Your task to perform on an android device: open a new tab in the chrome app Image 0: 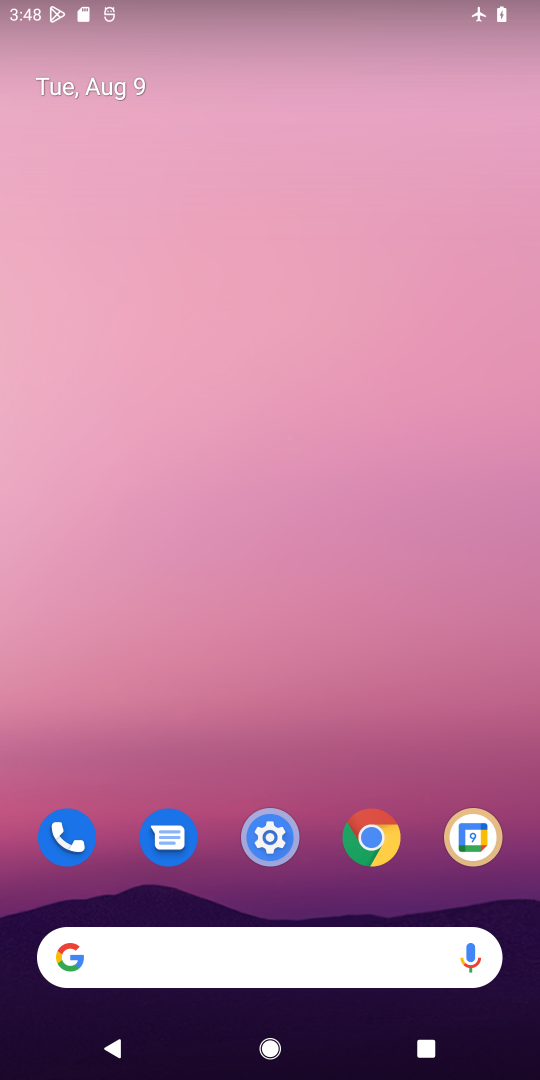
Step 0: drag from (248, 312) to (263, 165)
Your task to perform on an android device: open a new tab in the chrome app Image 1: 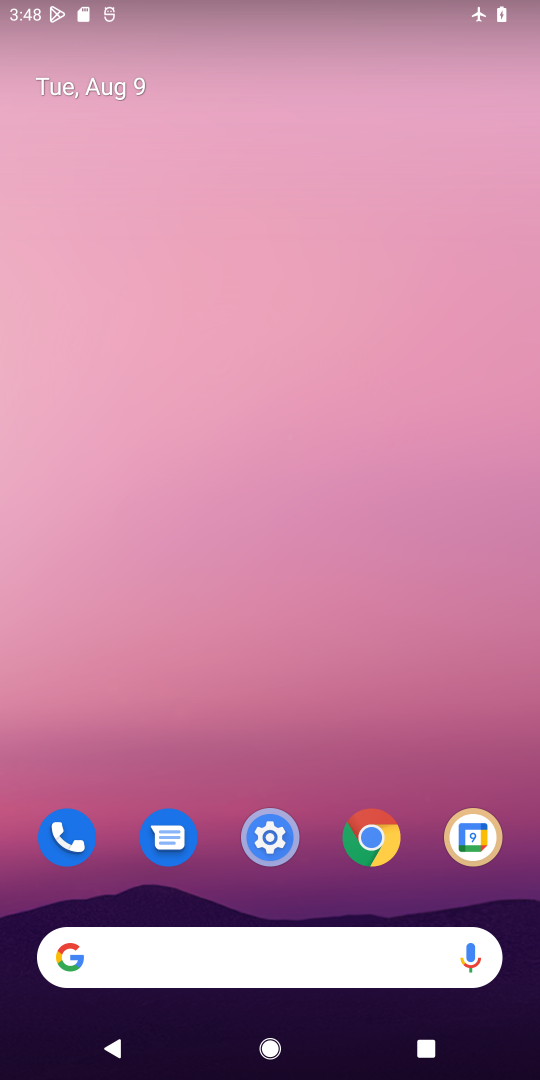
Step 1: drag from (296, 863) to (322, 188)
Your task to perform on an android device: open a new tab in the chrome app Image 2: 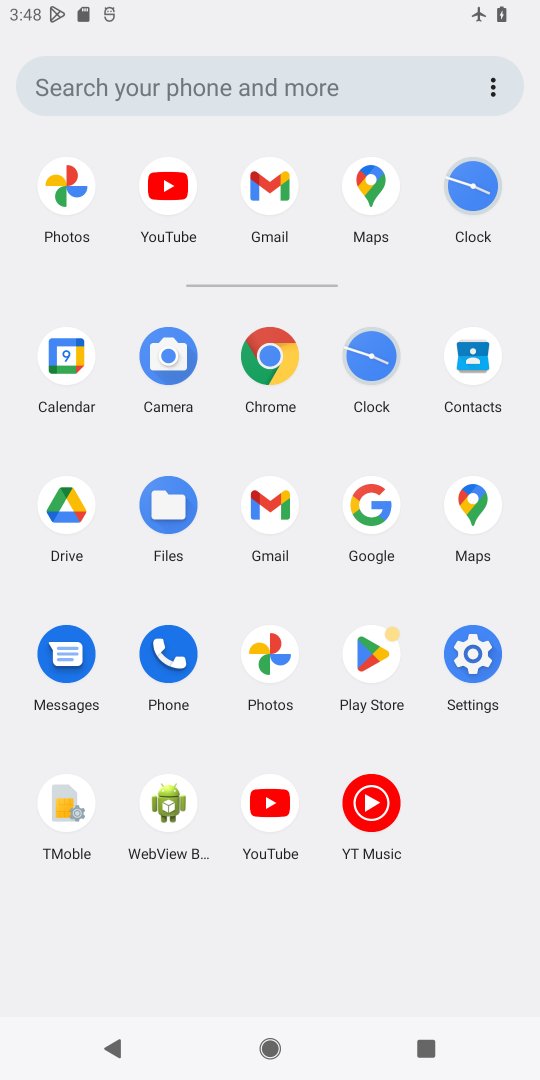
Step 2: click (263, 375)
Your task to perform on an android device: open a new tab in the chrome app Image 3: 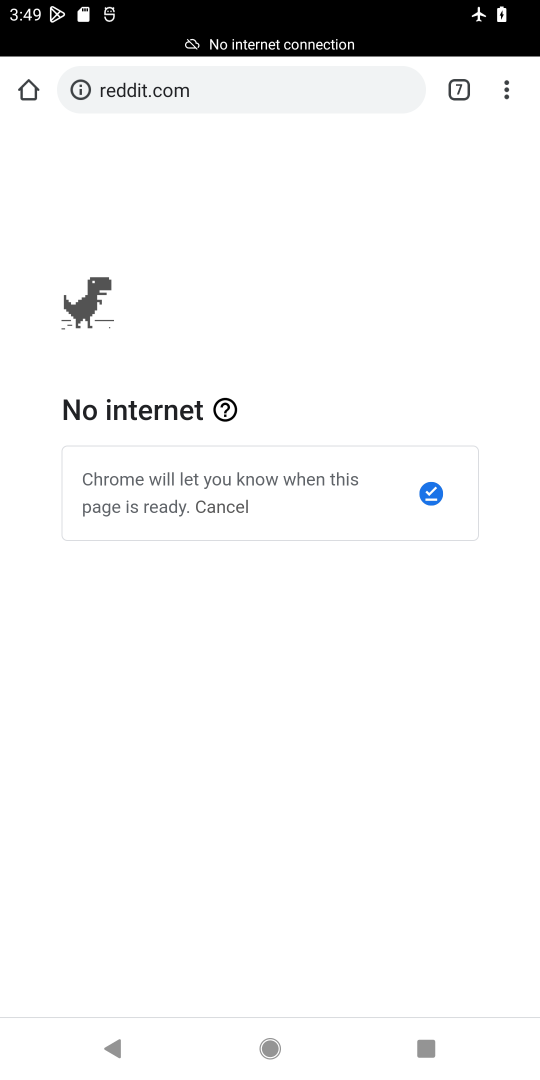
Step 3: click (512, 91)
Your task to perform on an android device: open a new tab in the chrome app Image 4: 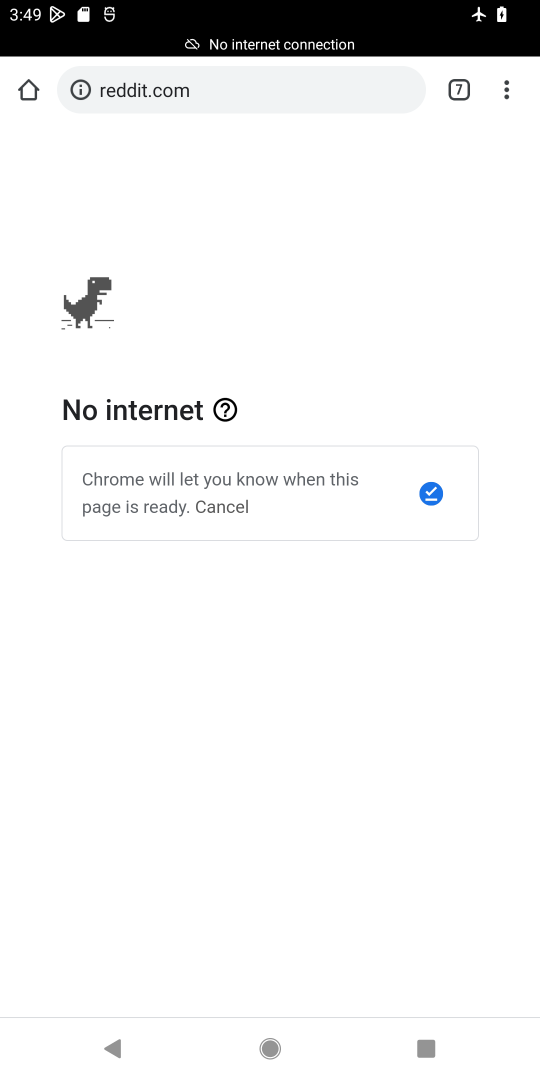
Step 4: click (501, 85)
Your task to perform on an android device: open a new tab in the chrome app Image 5: 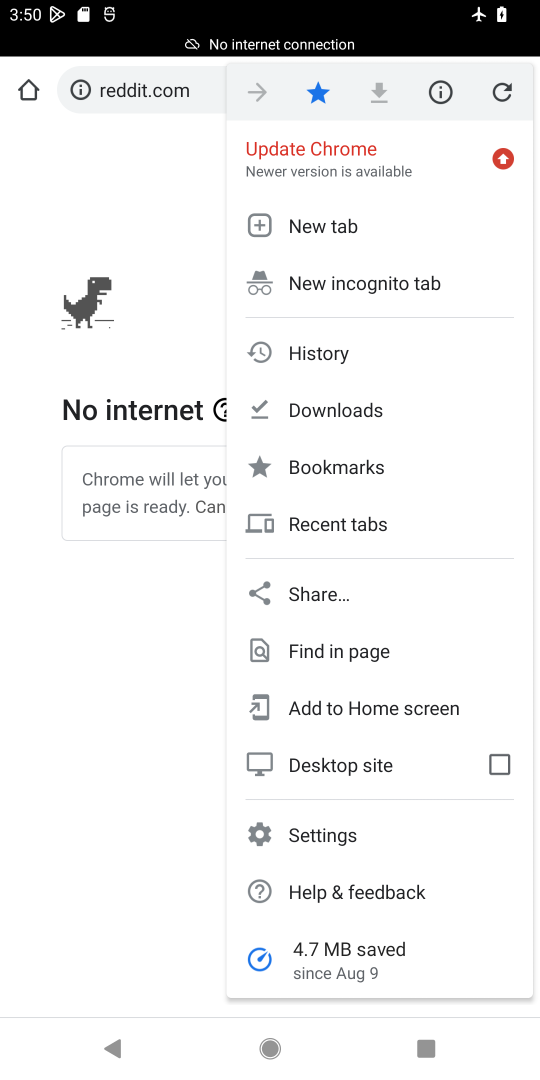
Step 5: click (312, 213)
Your task to perform on an android device: open a new tab in the chrome app Image 6: 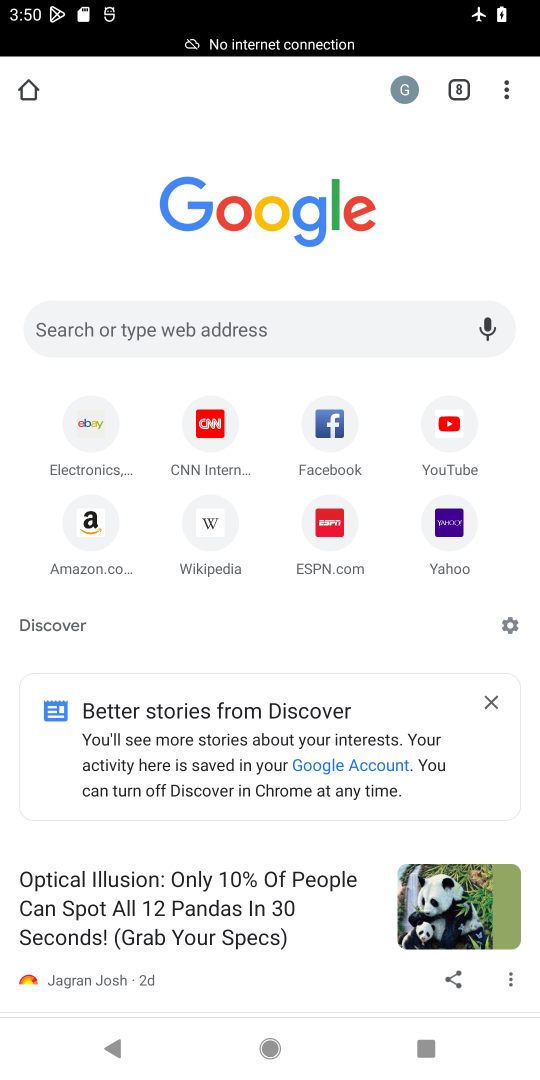
Step 6: task complete